Your task to perform on an android device: uninstall "Viber Messenger" Image 0: 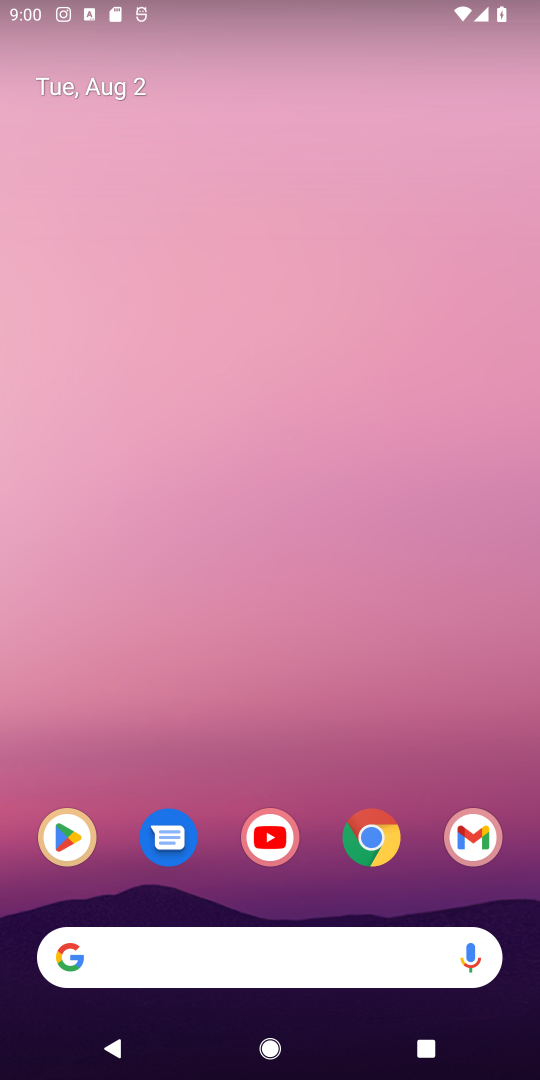
Step 0: click (71, 844)
Your task to perform on an android device: uninstall "Viber Messenger" Image 1: 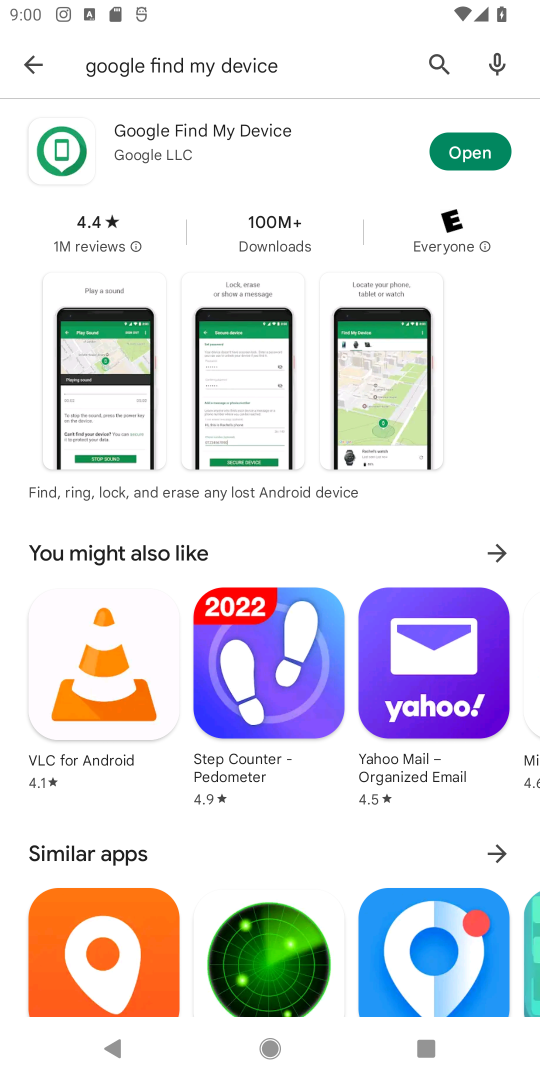
Step 1: click (434, 59)
Your task to perform on an android device: uninstall "Viber Messenger" Image 2: 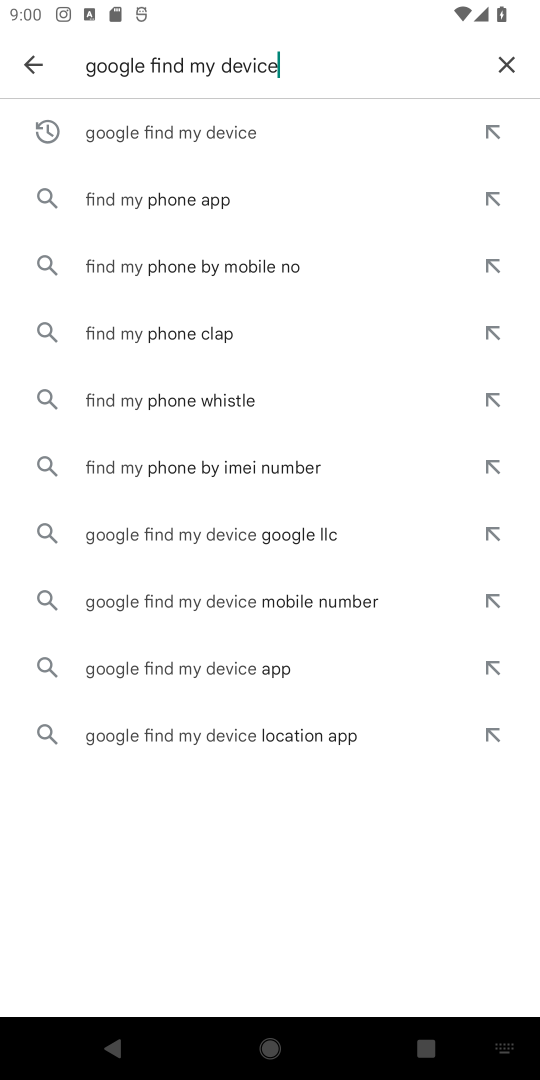
Step 2: click (502, 76)
Your task to perform on an android device: uninstall "Viber Messenger" Image 3: 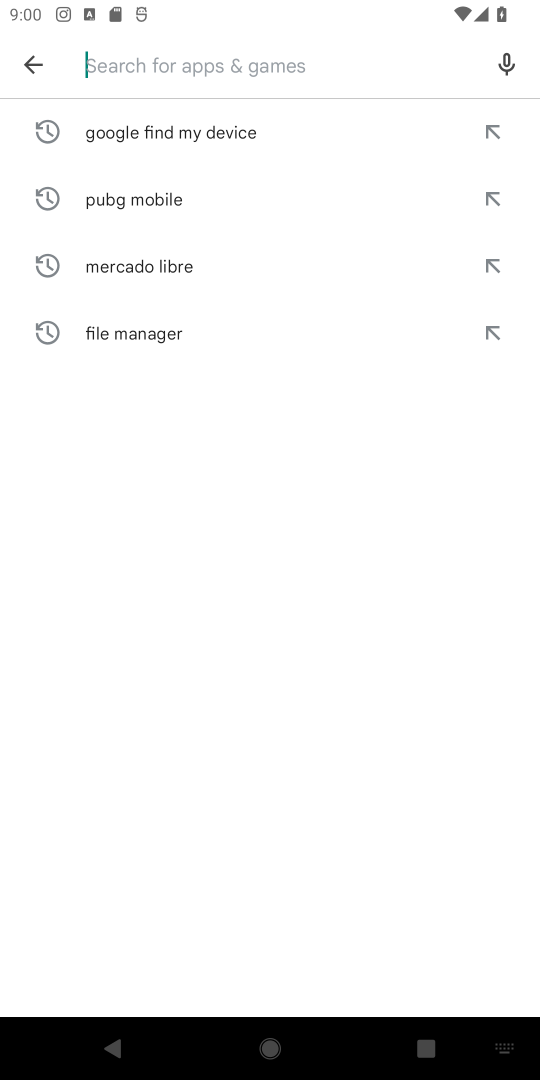
Step 3: type "Viber Messenger"
Your task to perform on an android device: uninstall "Viber Messenger" Image 4: 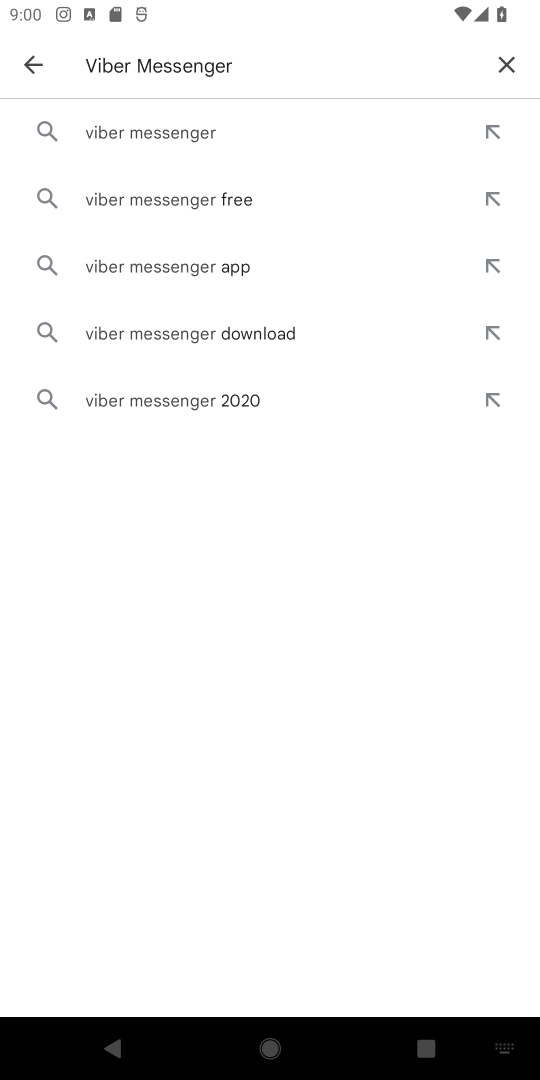
Step 4: click (138, 136)
Your task to perform on an android device: uninstall "Viber Messenger" Image 5: 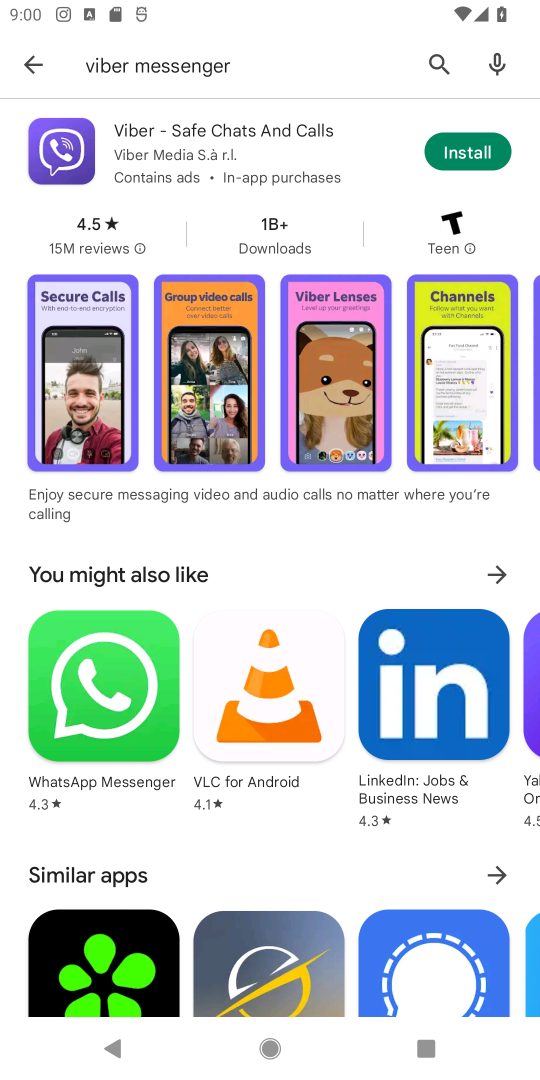
Step 5: task complete